Your task to perform on an android device: Open location settings Image 0: 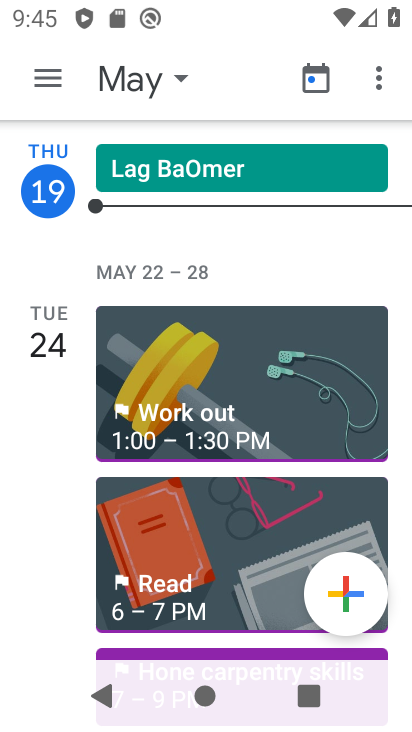
Step 0: press back button
Your task to perform on an android device: Open location settings Image 1: 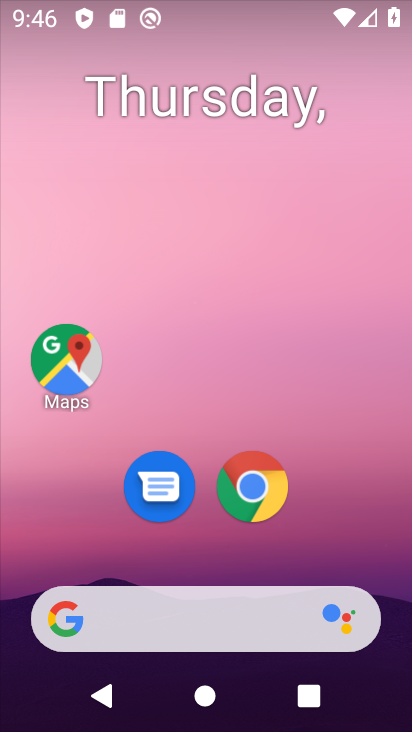
Step 1: drag from (235, 326) to (283, 35)
Your task to perform on an android device: Open location settings Image 2: 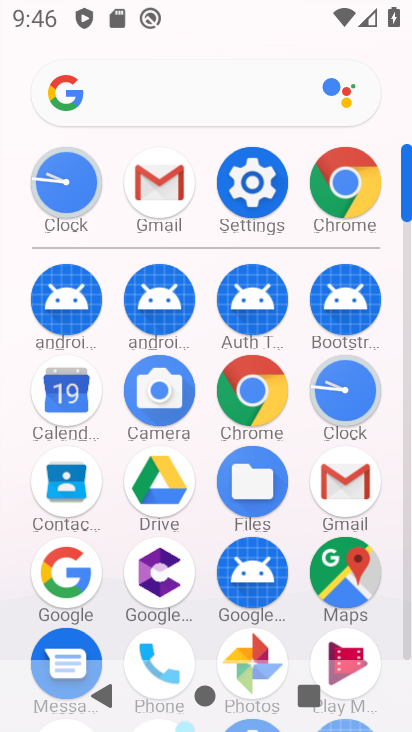
Step 2: click (252, 189)
Your task to perform on an android device: Open location settings Image 3: 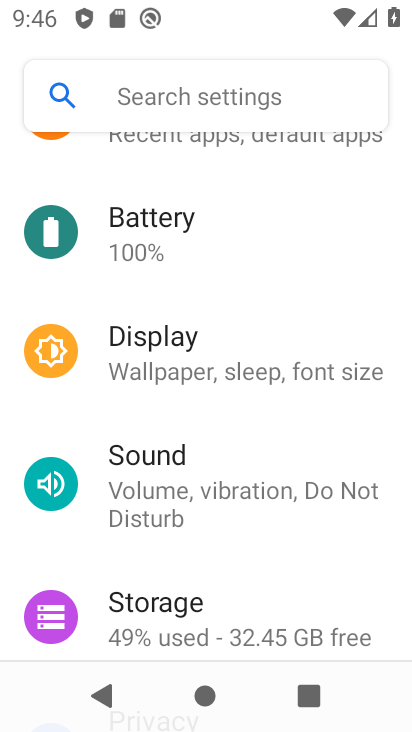
Step 3: drag from (186, 569) to (249, 245)
Your task to perform on an android device: Open location settings Image 4: 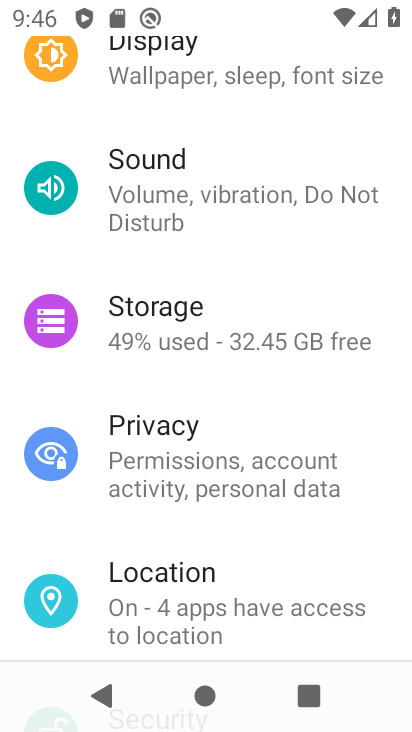
Step 4: click (164, 594)
Your task to perform on an android device: Open location settings Image 5: 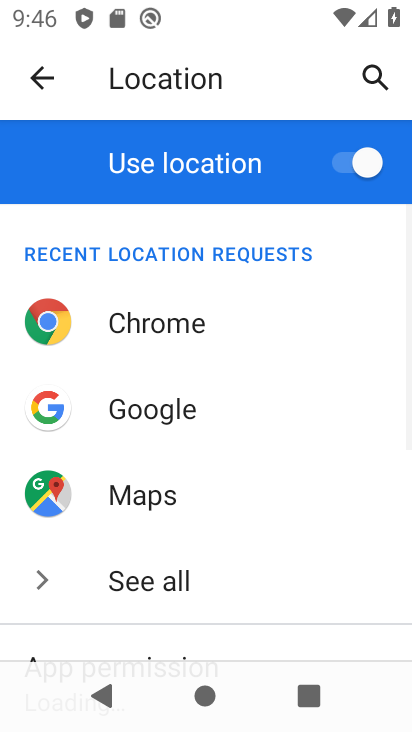
Step 5: task complete